Your task to perform on an android device: toggle show notifications on the lock screen Image 0: 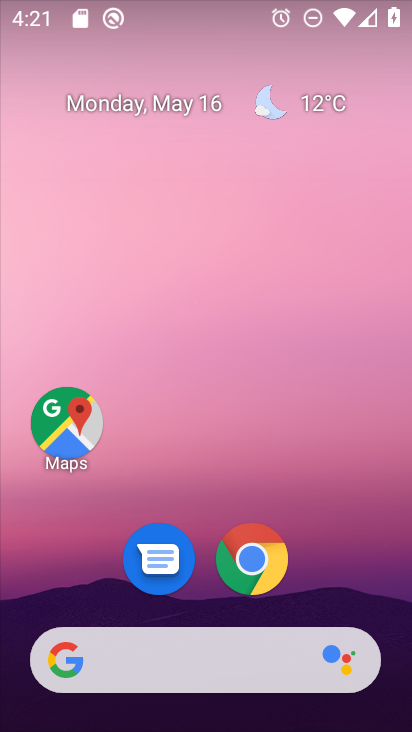
Step 0: drag from (370, 549) to (308, 131)
Your task to perform on an android device: toggle show notifications on the lock screen Image 1: 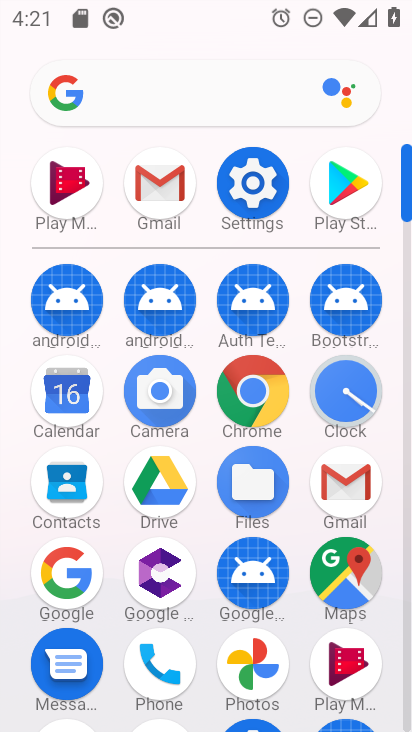
Step 1: click (257, 212)
Your task to perform on an android device: toggle show notifications on the lock screen Image 2: 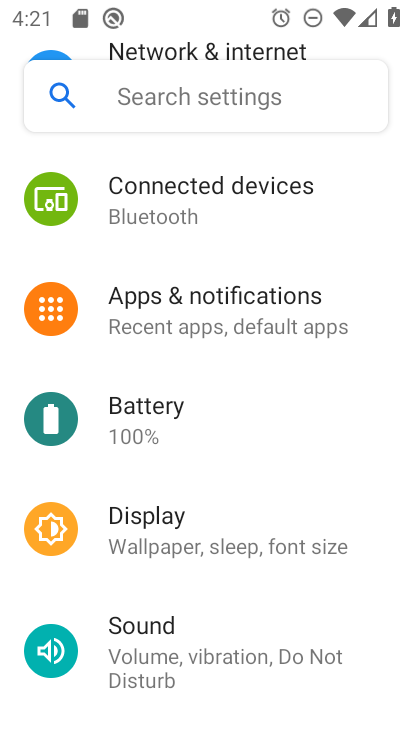
Step 2: click (227, 323)
Your task to perform on an android device: toggle show notifications on the lock screen Image 3: 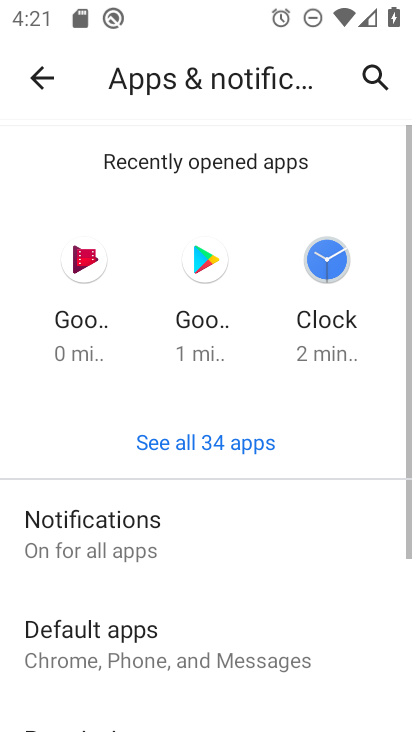
Step 3: click (146, 513)
Your task to perform on an android device: toggle show notifications on the lock screen Image 4: 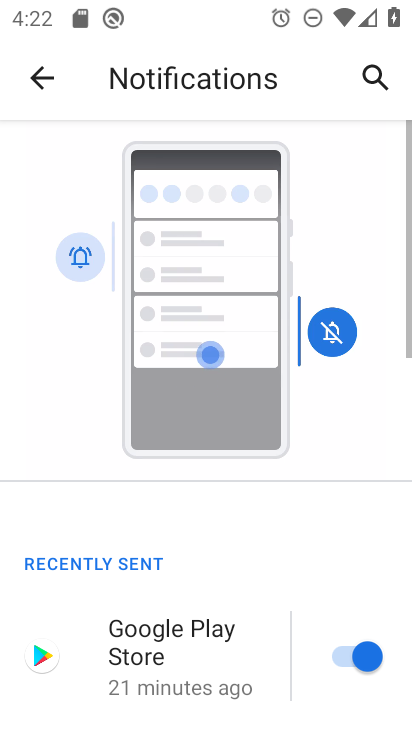
Step 4: drag from (157, 571) to (85, 138)
Your task to perform on an android device: toggle show notifications on the lock screen Image 5: 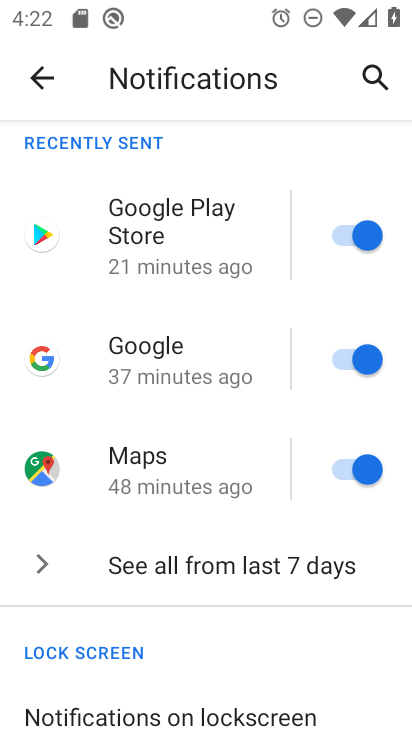
Step 5: click (109, 723)
Your task to perform on an android device: toggle show notifications on the lock screen Image 6: 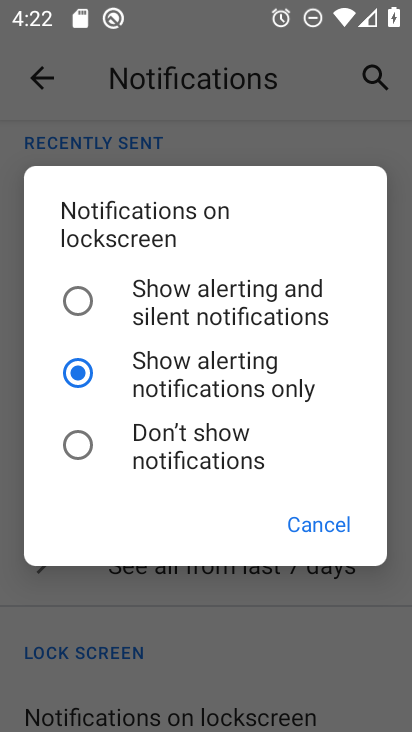
Step 6: click (139, 332)
Your task to perform on an android device: toggle show notifications on the lock screen Image 7: 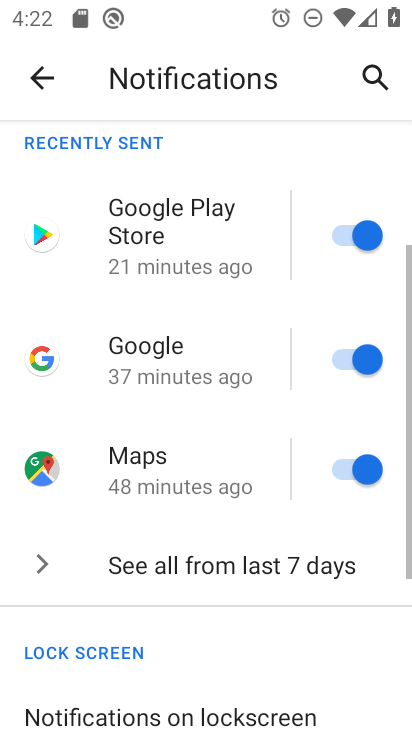
Step 7: task complete